Your task to perform on an android device: Clear the shopping cart on target. Search for macbook on target, select the first entry, add it to the cart, then select checkout. Image 0: 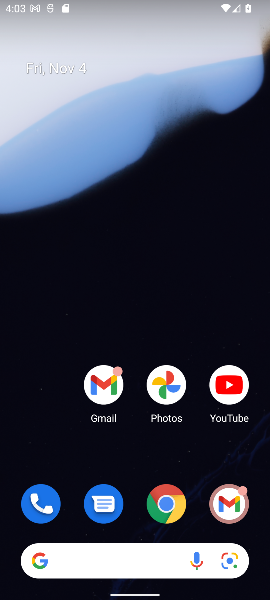
Step 0: click (175, 507)
Your task to perform on an android device: Clear the shopping cart on target. Search for macbook on target, select the first entry, add it to the cart, then select checkout. Image 1: 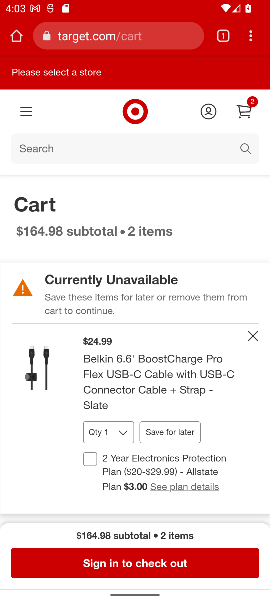
Step 1: drag from (122, 443) to (161, 238)
Your task to perform on an android device: Clear the shopping cart on target. Search for macbook on target, select the first entry, add it to the cart, then select checkout. Image 2: 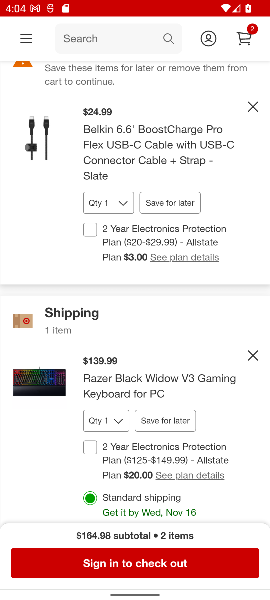
Step 2: click (254, 101)
Your task to perform on an android device: Clear the shopping cart on target. Search for macbook on target, select the first entry, add it to the cart, then select checkout. Image 3: 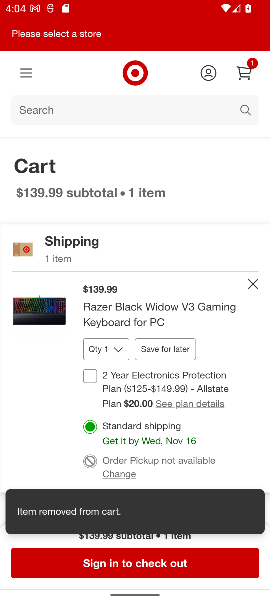
Step 3: click (258, 280)
Your task to perform on an android device: Clear the shopping cart on target. Search for macbook on target, select the first entry, add it to the cart, then select checkout. Image 4: 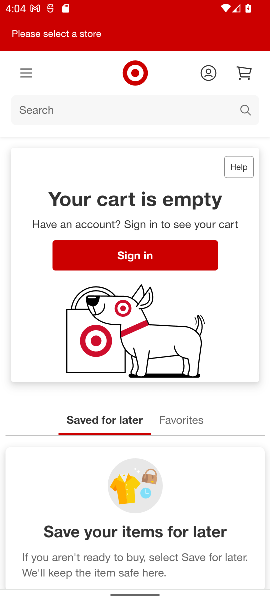
Step 4: click (238, 115)
Your task to perform on an android device: Clear the shopping cart on target. Search for macbook on target, select the first entry, add it to the cart, then select checkout. Image 5: 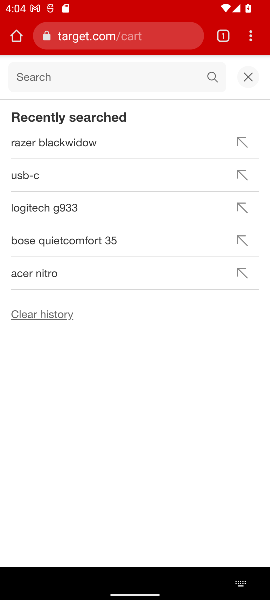
Step 5: type "macbook"
Your task to perform on an android device: Clear the shopping cart on target. Search for macbook on target, select the first entry, add it to the cart, then select checkout. Image 6: 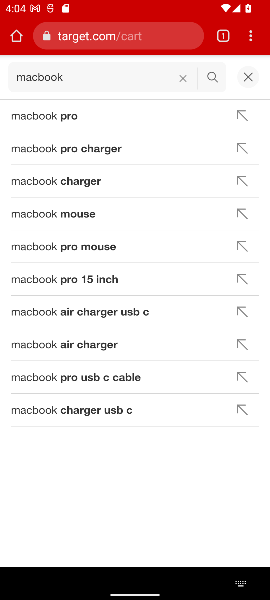
Step 6: click (211, 79)
Your task to perform on an android device: Clear the shopping cart on target. Search for macbook on target, select the first entry, add it to the cart, then select checkout. Image 7: 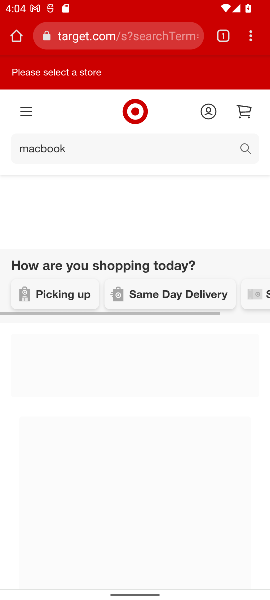
Step 7: task complete